Your task to perform on an android device: toggle javascript in the chrome app Image 0: 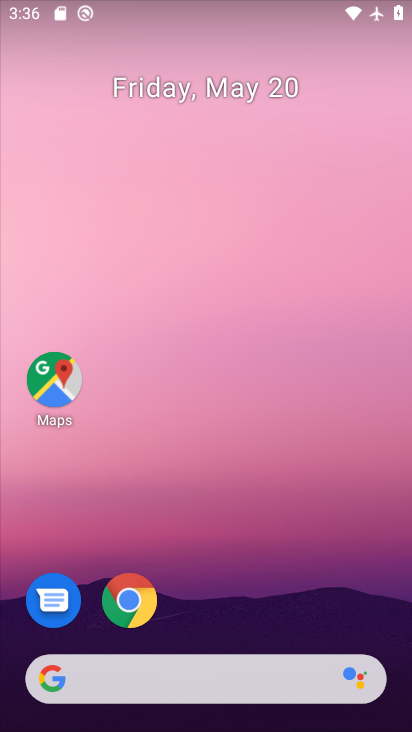
Step 0: click (145, 598)
Your task to perform on an android device: toggle javascript in the chrome app Image 1: 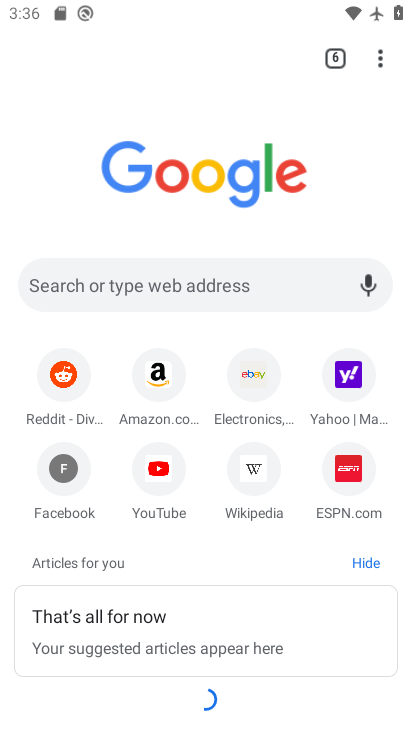
Step 1: click (371, 53)
Your task to perform on an android device: toggle javascript in the chrome app Image 2: 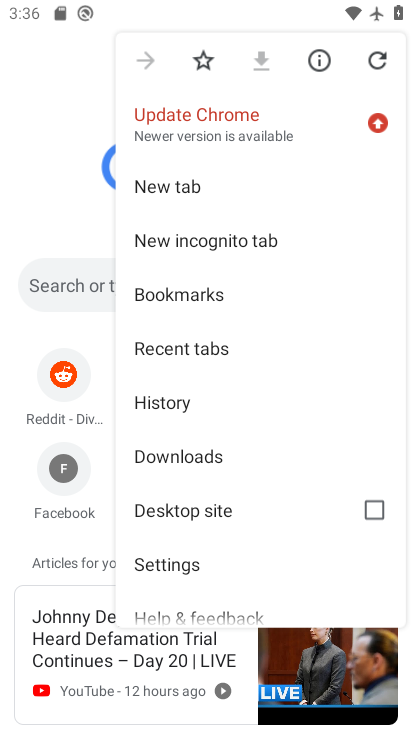
Step 2: click (216, 564)
Your task to perform on an android device: toggle javascript in the chrome app Image 3: 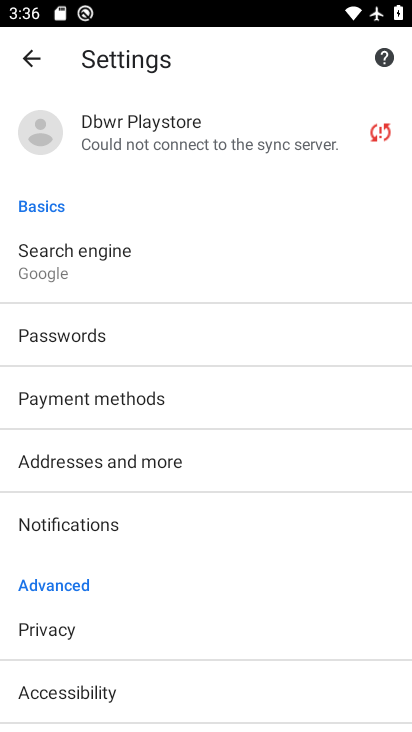
Step 3: drag from (273, 559) to (188, 171)
Your task to perform on an android device: toggle javascript in the chrome app Image 4: 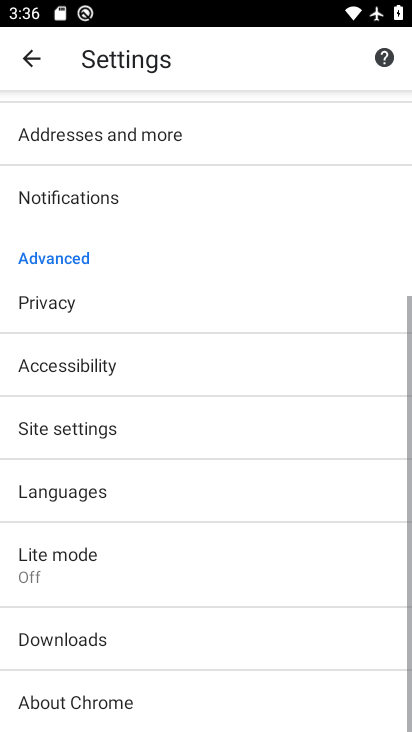
Step 4: click (149, 432)
Your task to perform on an android device: toggle javascript in the chrome app Image 5: 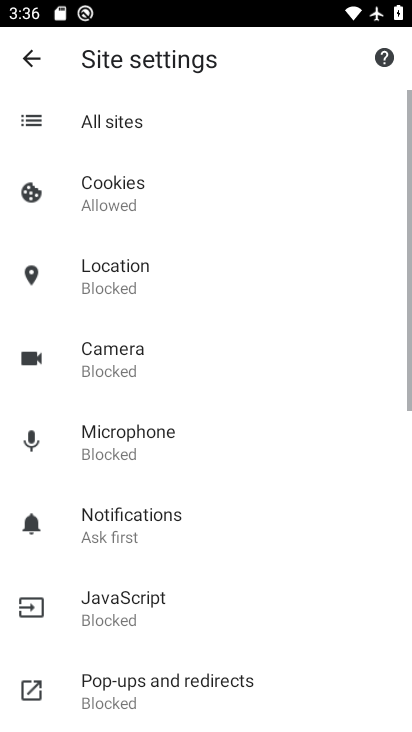
Step 5: click (184, 612)
Your task to perform on an android device: toggle javascript in the chrome app Image 6: 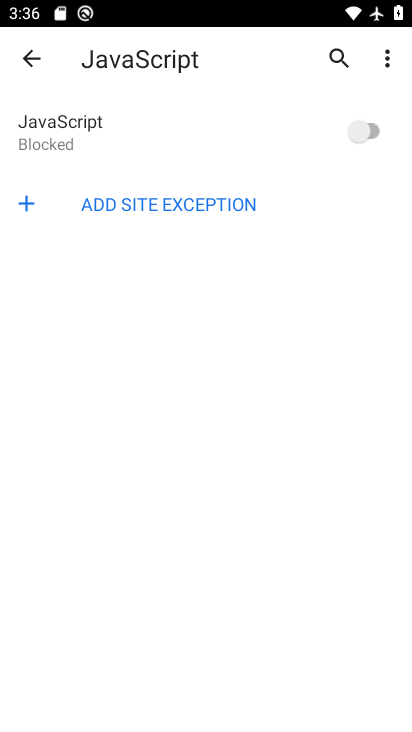
Step 6: click (368, 126)
Your task to perform on an android device: toggle javascript in the chrome app Image 7: 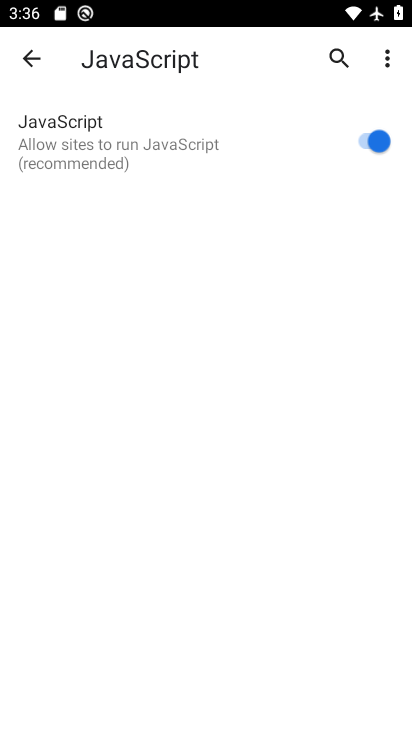
Step 7: task complete